Your task to perform on an android device: turn off sleep mode Image 0: 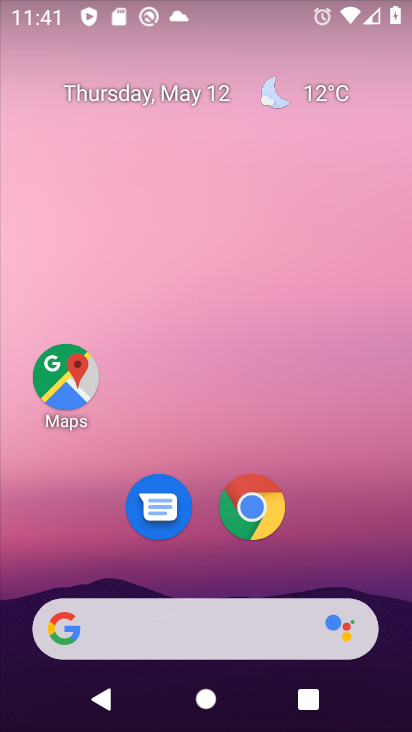
Step 0: drag from (207, 553) to (231, 0)
Your task to perform on an android device: turn off sleep mode Image 1: 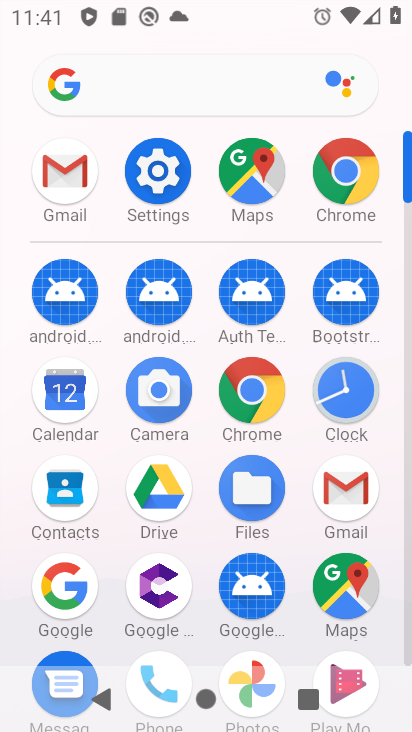
Step 1: click (164, 193)
Your task to perform on an android device: turn off sleep mode Image 2: 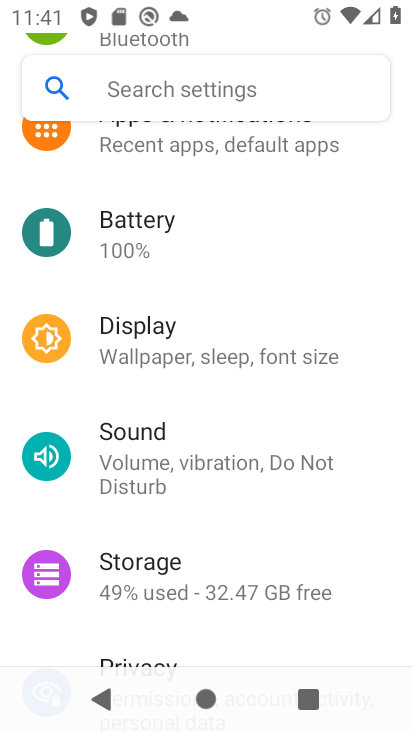
Step 2: click (195, 100)
Your task to perform on an android device: turn off sleep mode Image 3: 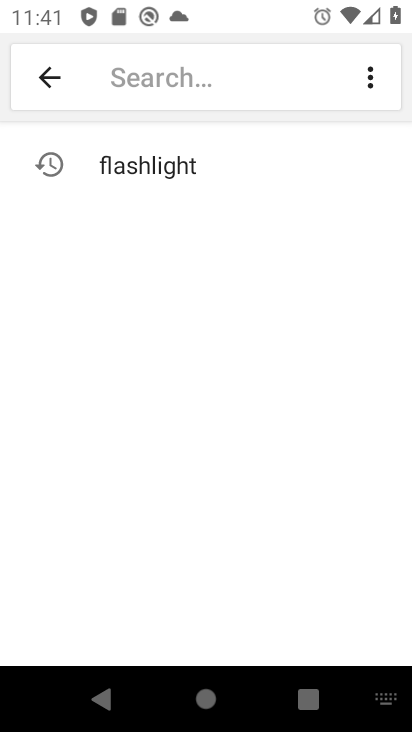
Step 3: type "sleep mode"
Your task to perform on an android device: turn off sleep mode Image 4: 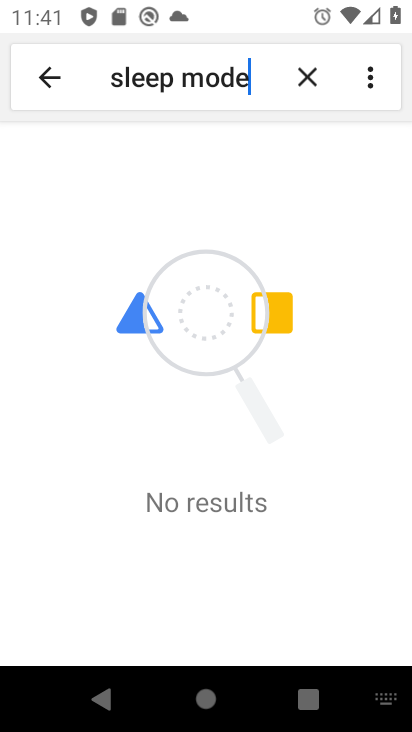
Step 4: click (197, 360)
Your task to perform on an android device: turn off sleep mode Image 5: 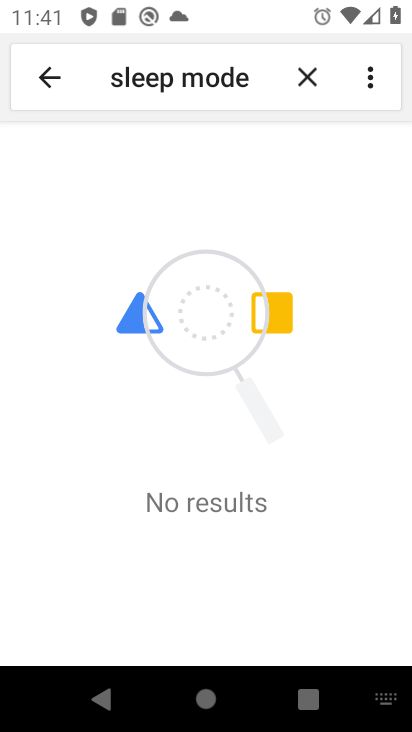
Step 5: task complete